Your task to perform on an android device: Search for razer nari on costco, select the first entry, and add it to the cart. Image 0: 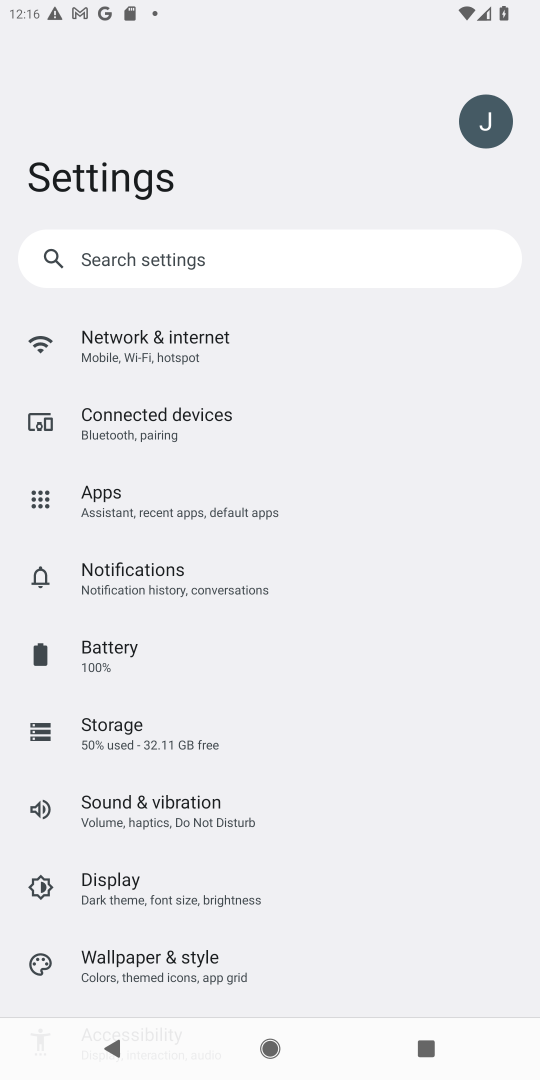
Step 0: press home button
Your task to perform on an android device: Search for razer nari on costco, select the first entry, and add it to the cart. Image 1: 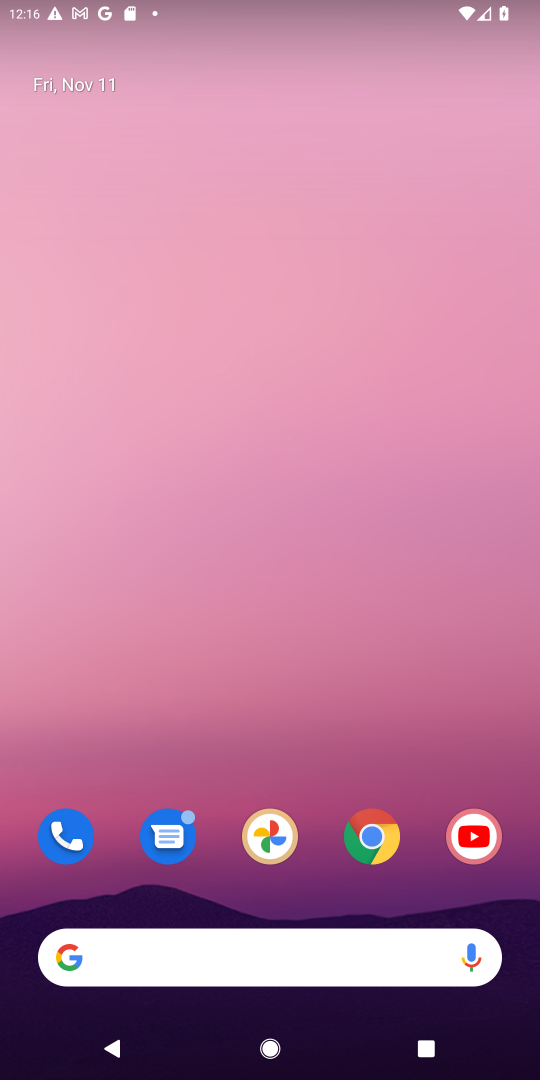
Step 1: click (259, 951)
Your task to perform on an android device: Search for razer nari on costco, select the first entry, and add it to the cart. Image 2: 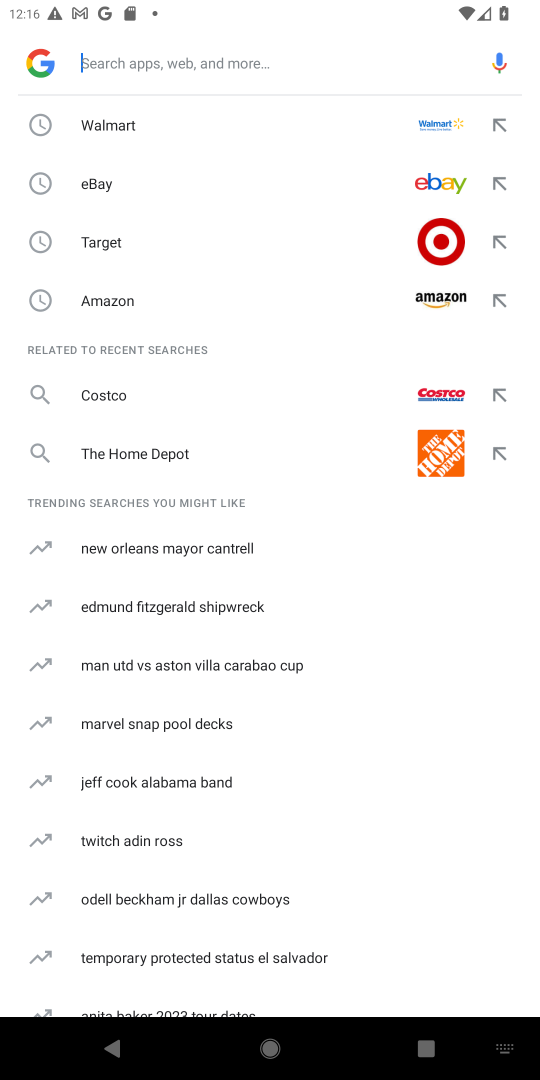
Step 2: click (188, 394)
Your task to perform on an android device: Search for razer nari on costco, select the first entry, and add it to the cart. Image 3: 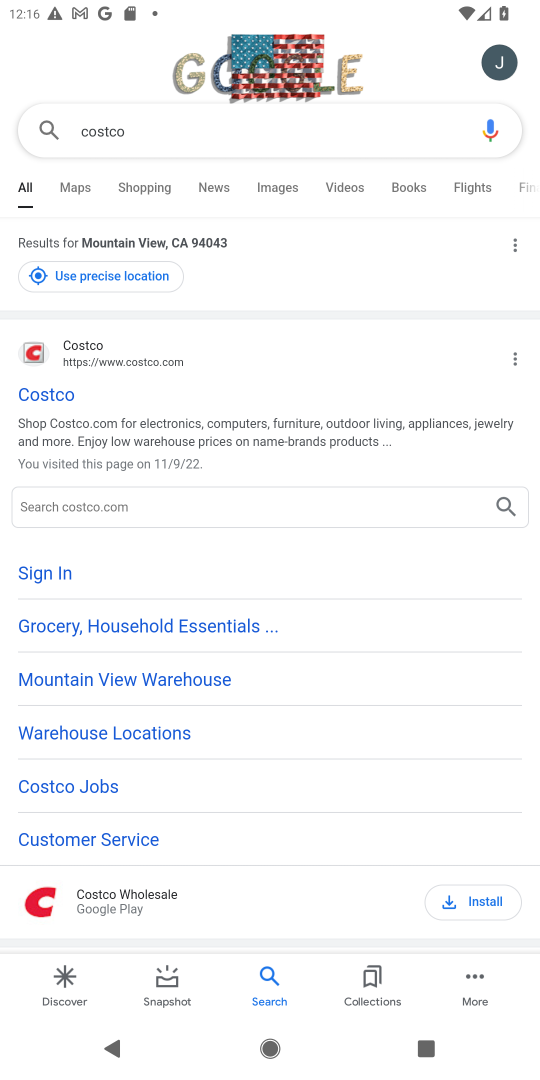
Step 3: click (84, 350)
Your task to perform on an android device: Search for razer nari on costco, select the first entry, and add it to the cart. Image 4: 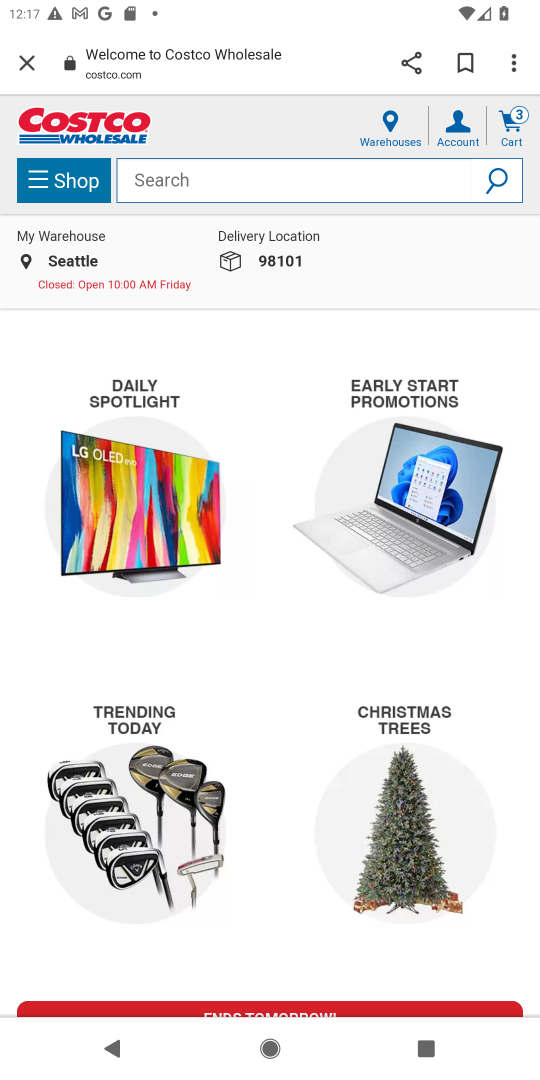
Step 4: click (329, 173)
Your task to perform on an android device: Search for razer nari on costco, select the first entry, and add it to the cart. Image 5: 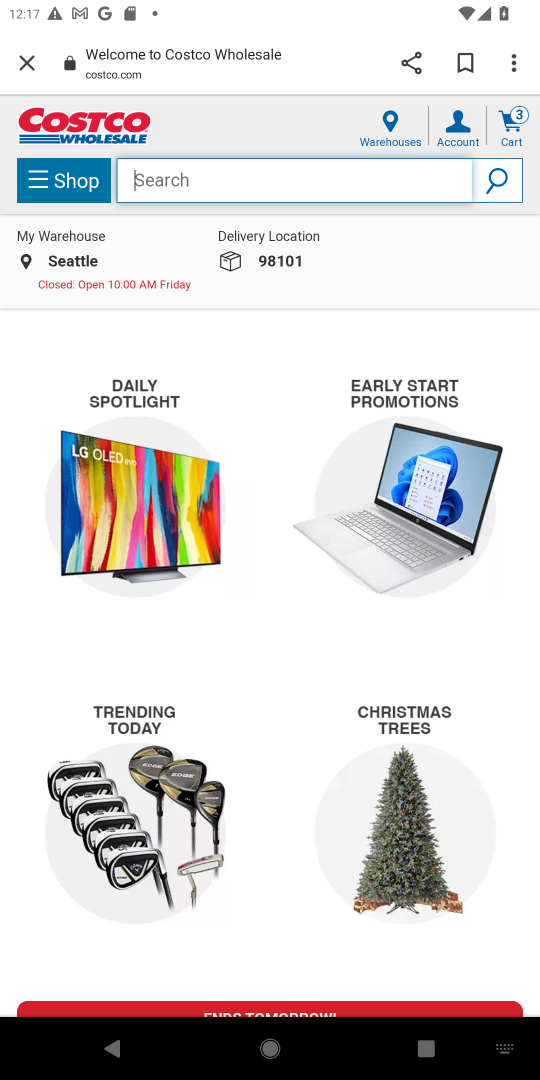
Step 5: type "razer nari "
Your task to perform on an android device: Search for razer nari on costco, select the first entry, and add it to the cart. Image 6: 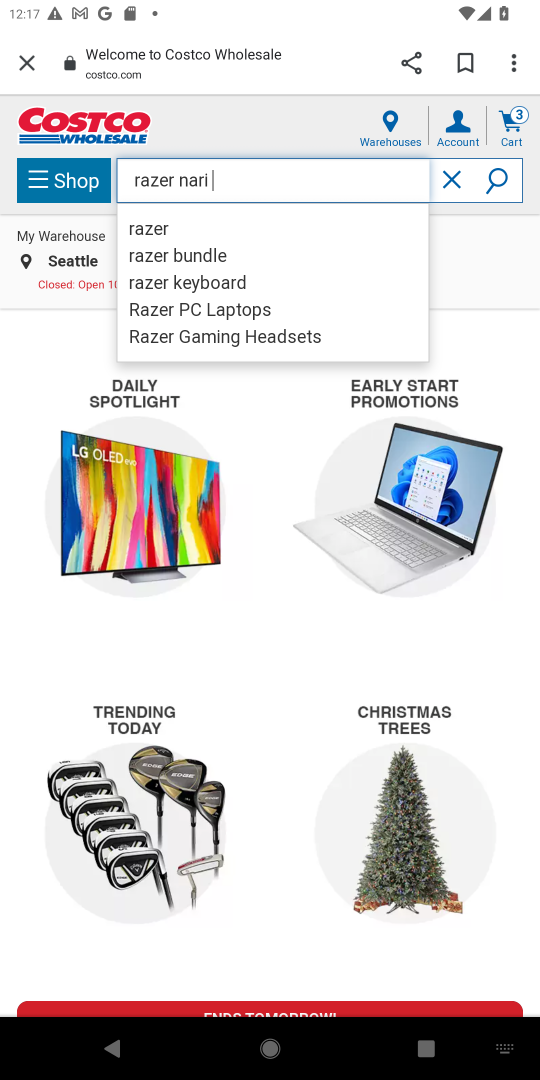
Step 6: click (139, 232)
Your task to perform on an android device: Search for razer nari on costco, select the first entry, and add it to the cart. Image 7: 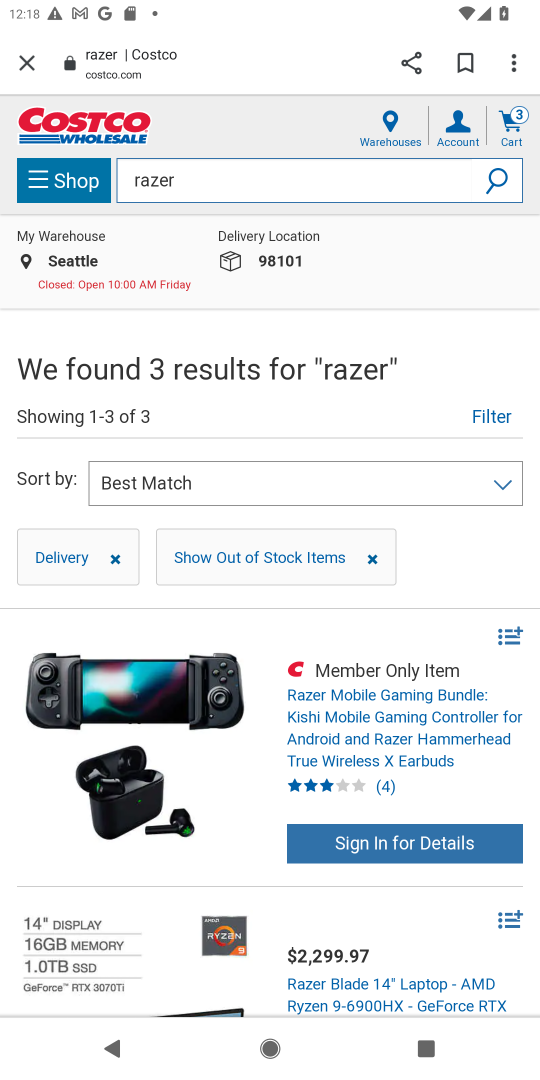
Step 7: click (119, 542)
Your task to perform on an android device: Search for razer nari on costco, select the first entry, and add it to the cart. Image 8: 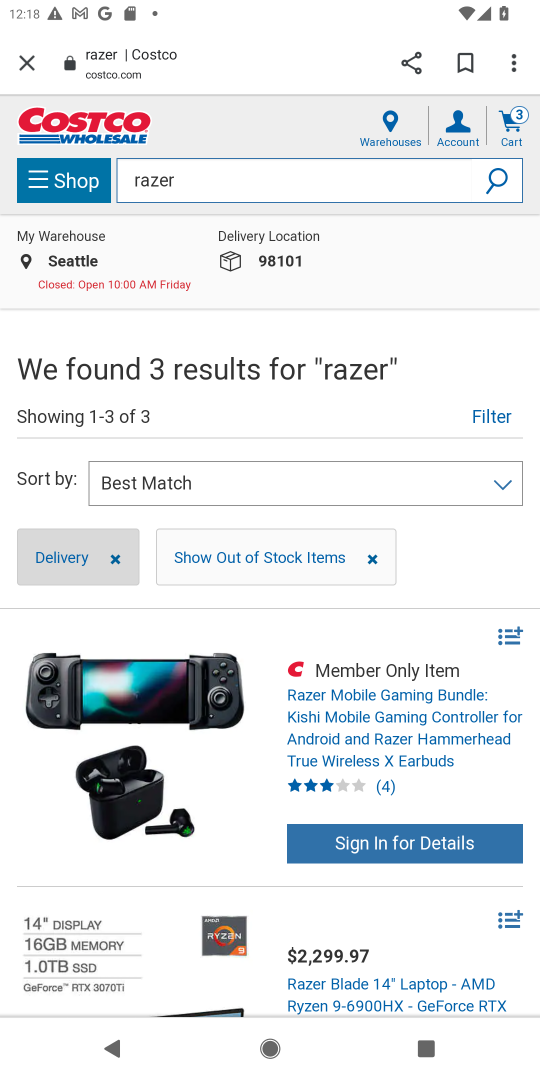
Step 8: click (168, 722)
Your task to perform on an android device: Search for razer nari on costco, select the first entry, and add it to the cart. Image 9: 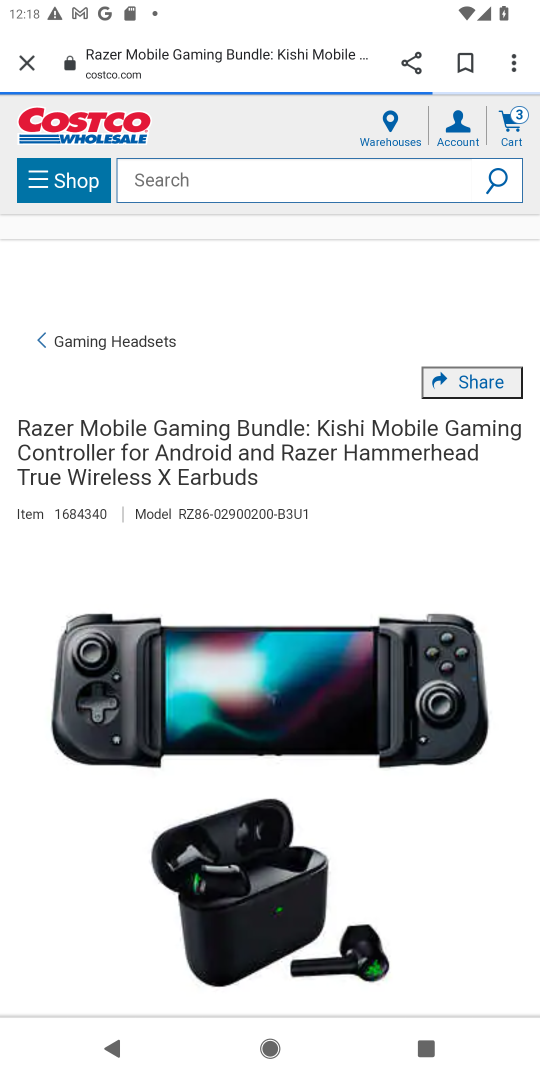
Step 9: drag from (362, 679) to (368, 234)
Your task to perform on an android device: Search for razer nari on costco, select the first entry, and add it to the cart. Image 10: 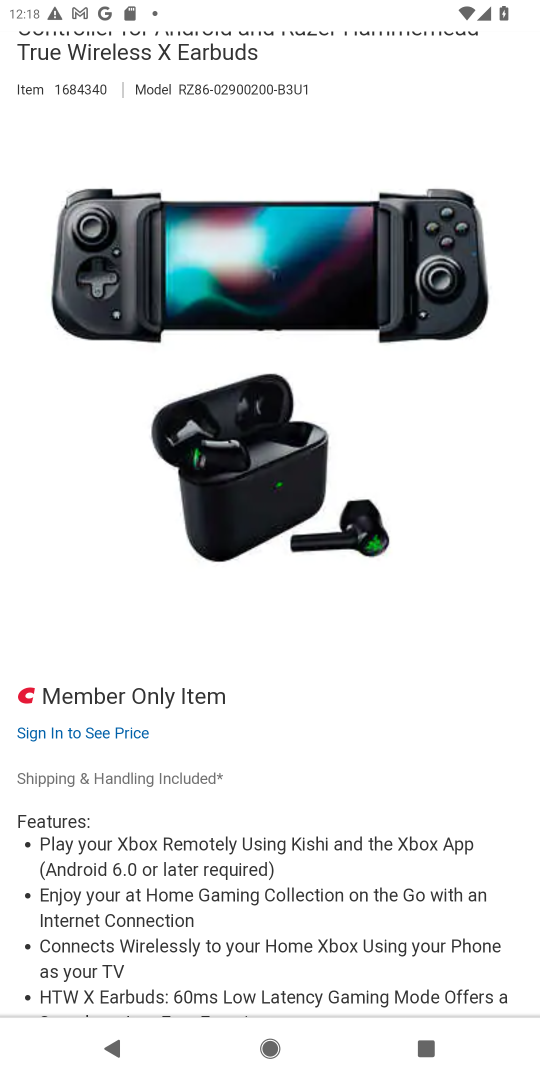
Step 10: drag from (239, 651) to (257, 457)
Your task to perform on an android device: Search for razer nari on costco, select the first entry, and add it to the cart. Image 11: 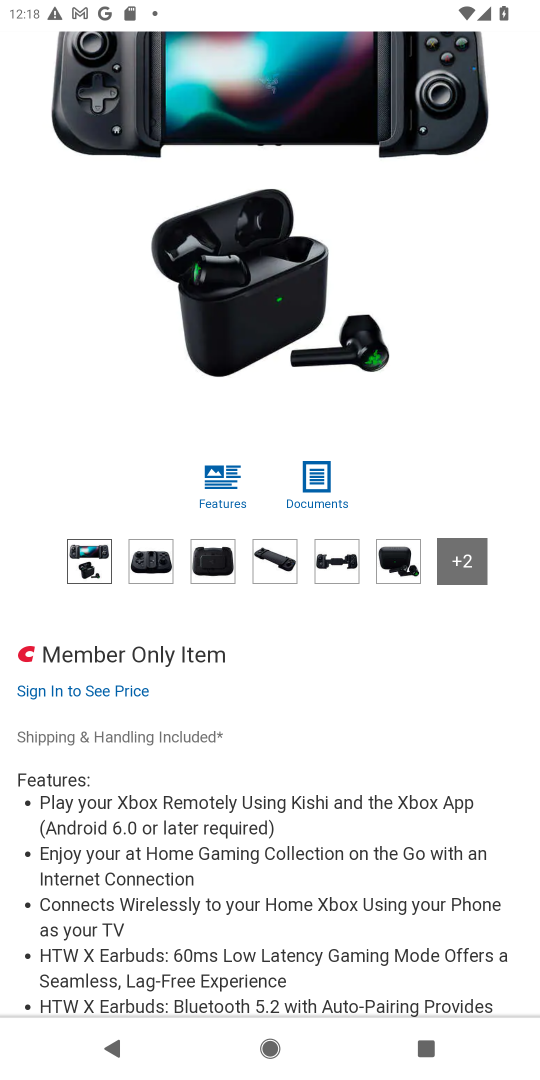
Step 11: drag from (209, 750) to (229, 497)
Your task to perform on an android device: Search for razer nari on costco, select the first entry, and add it to the cart. Image 12: 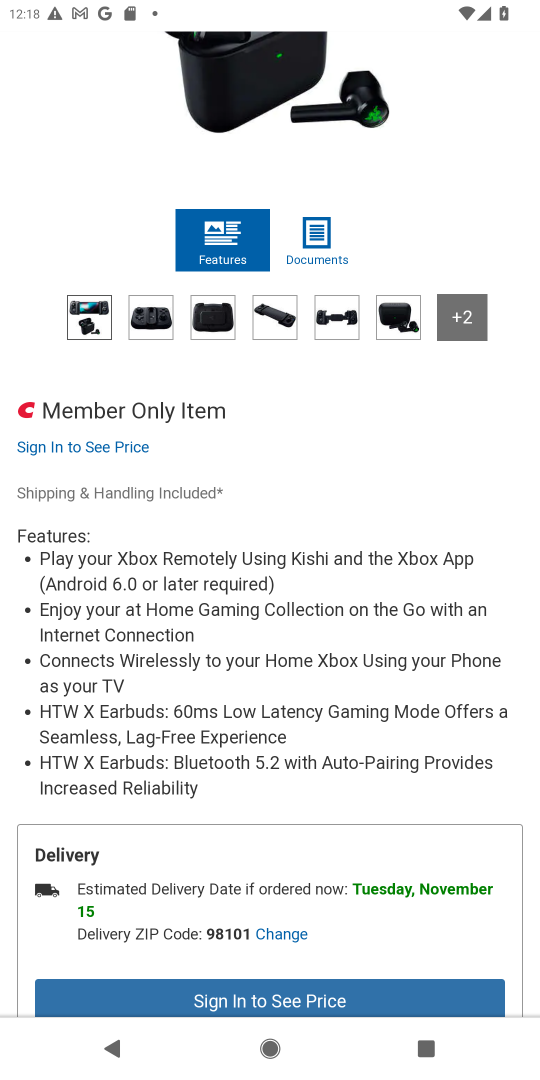
Step 12: click (208, 422)
Your task to perform on an android device: Search for razer nari on costco, select the first entry, and add it to the cart. Image 13: 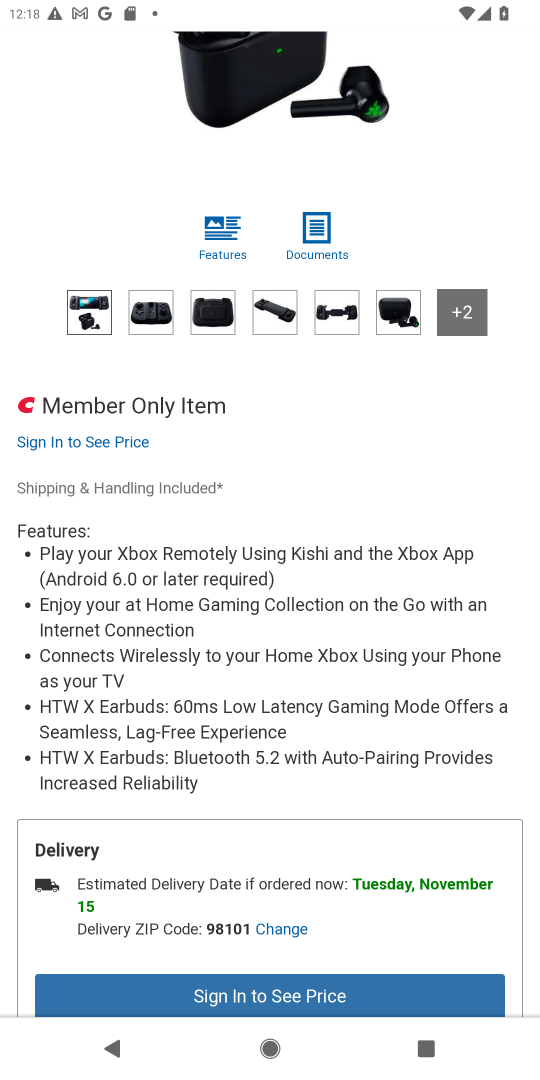
Step 13: drag from (201, 790) to (295, 311)
Your task to perform on an android device: Search for razer nari on costco, select the first entry, and add it to the cart. Image 14: 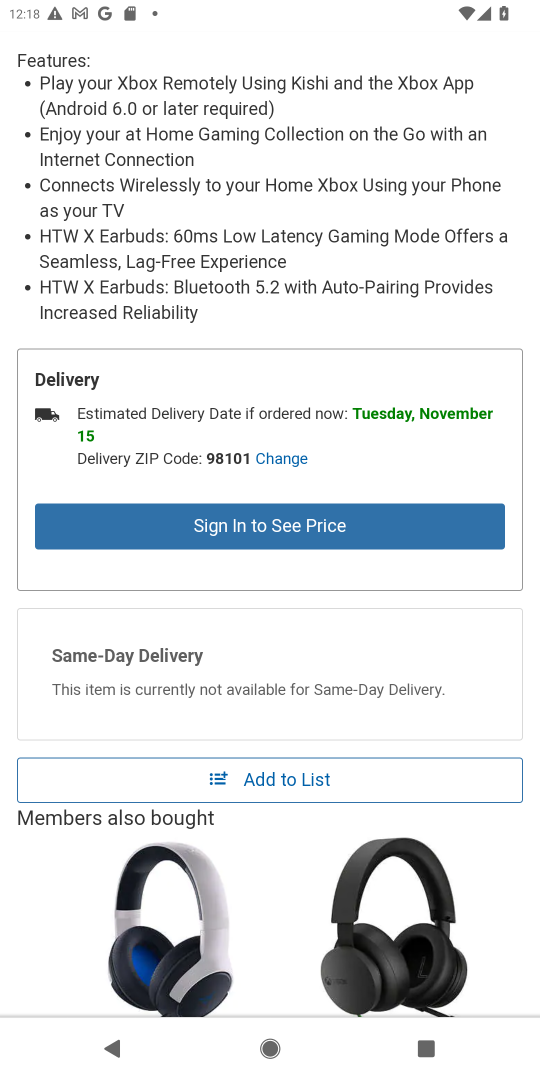
Step 14: click (277, 777)
Your task to perform on an android device: Search for razer nari on costco, select the first entry, and add it to the cart. Image 15: 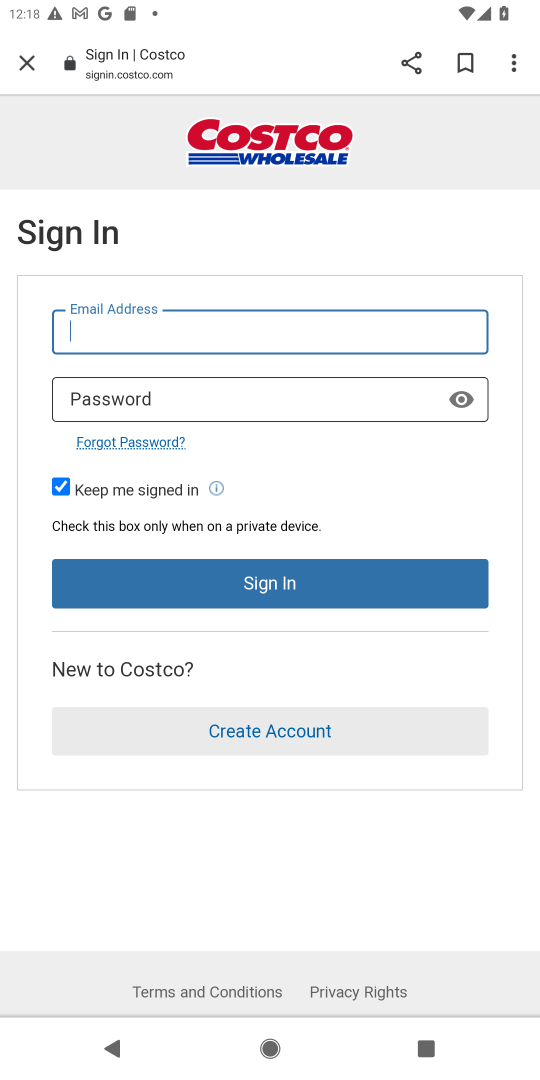
Step 15: task complete